Your task to perform on an android device: Open Amazon Image 0: 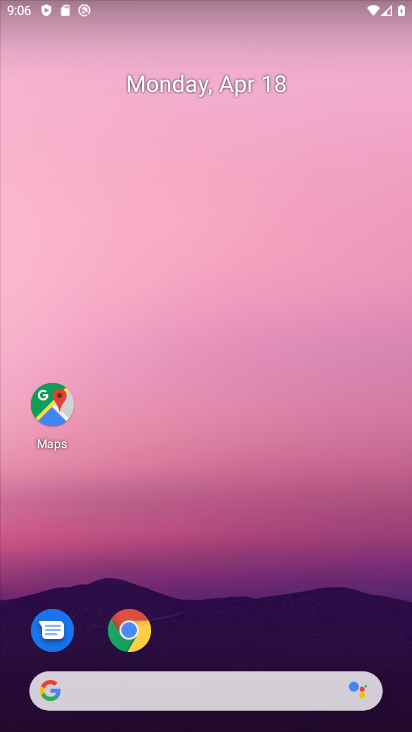
Step 0: click (135, 626)
Your task to perform on an android device: Open Amazon Image 1: 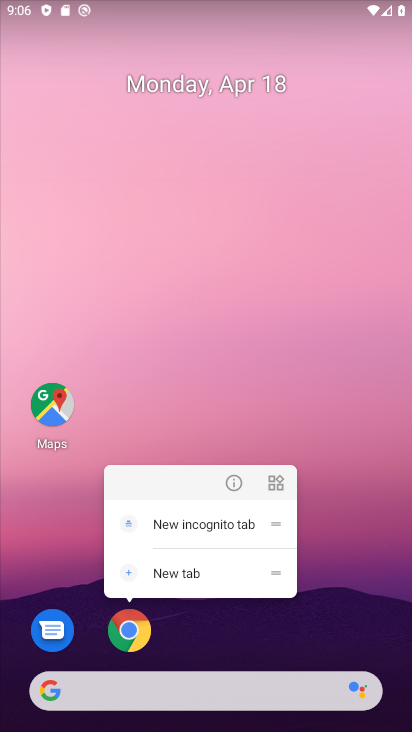
Step 1: click (135, 626)
Your task to perform on an android device: Open Amazon Image 2: 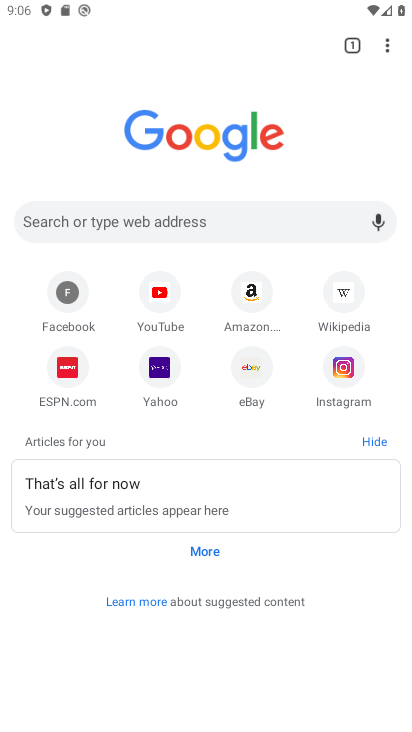
Step 2: click (247, 281)
Your task to perform on an android device: Open Amazon Image 3: 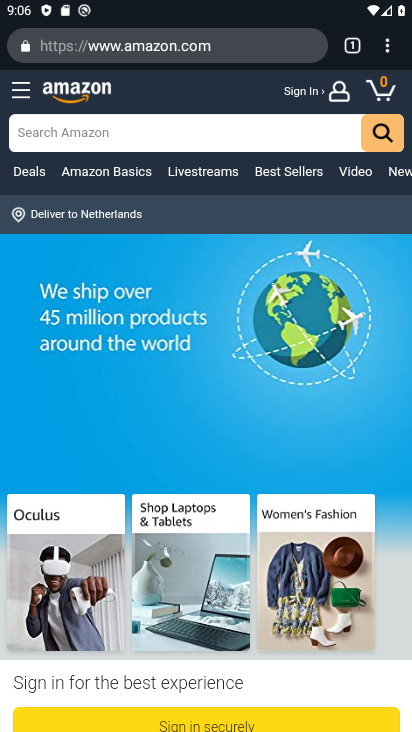
Step 3: task complete